Your task to perform on an android device: Open Google Chrome and open the bookmarks view Image 0: 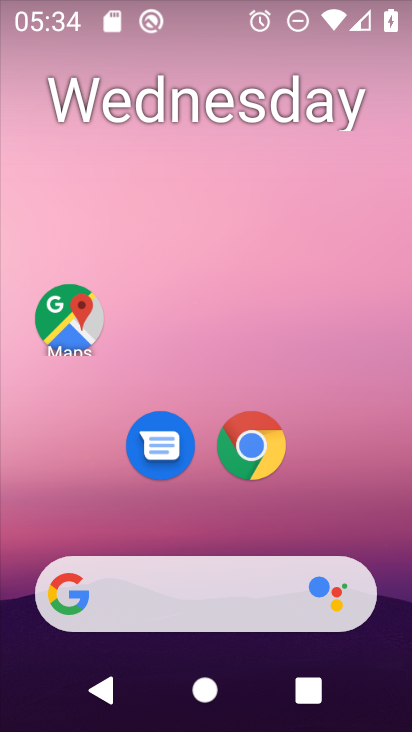
Step 0: click (245, 462)
Your task to perform on an android device: Open Google Chrome and open the bookmarks view Image 1: 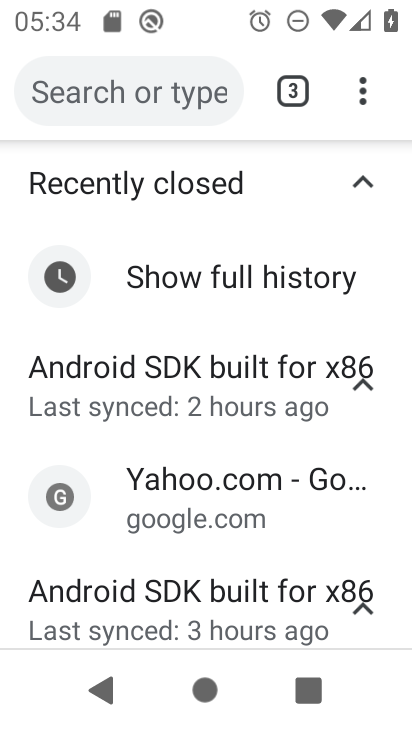
Step 1: click (379, 87)
Your task to perform on an android device: Open Google Chrome and open the bookmarks view Image 2: 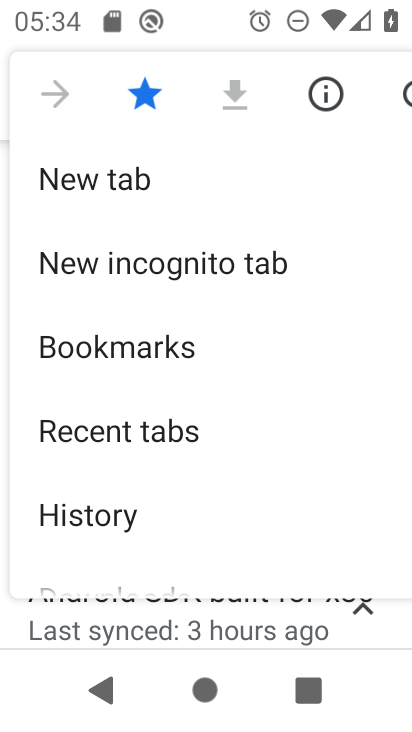
Step 2: click (114, 355)
Your task to perform on an android device: Open Google Chrome and open the bookmarks view Image 3: 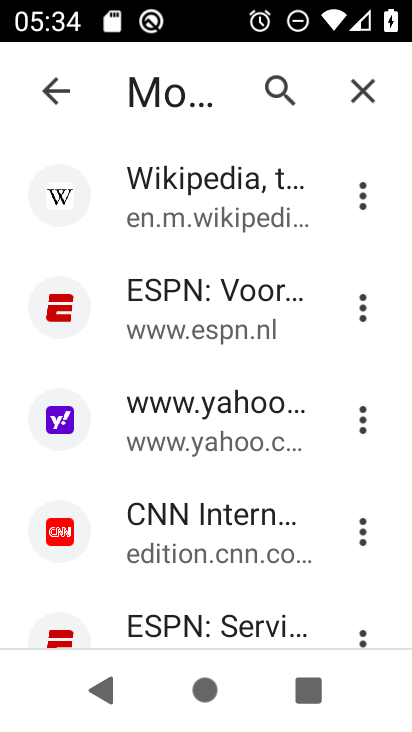
Step 3: task complete